Your task to perform on an android device: What is the news today? Image 0: 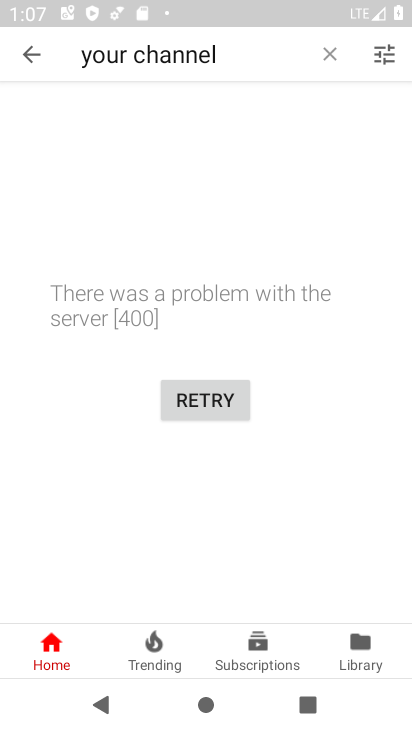
Step 0: press home button
Your task to perform on an android device: What is the news today? Image 1: 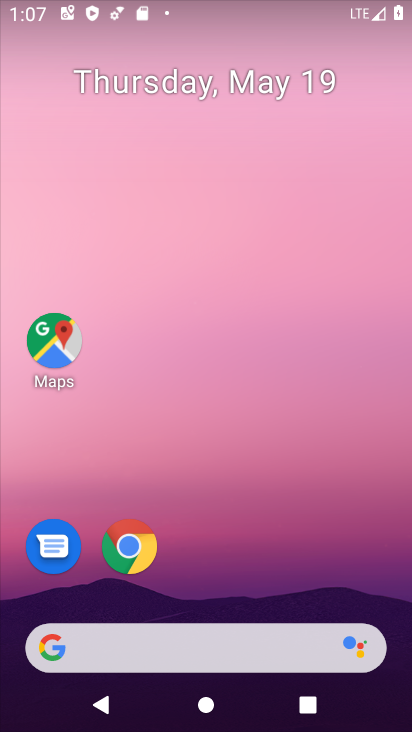
Step 1: click (160, 603)
Your task to perform on an android device: What is the news today? Image 2: 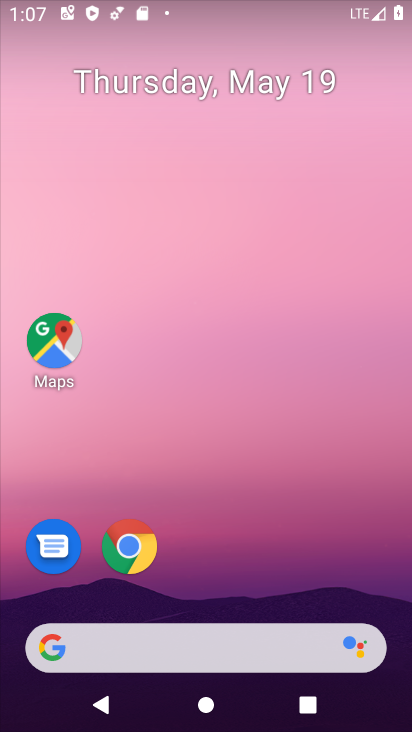
Step 2: click (193, 638)
Your task to perform on an android device: What is the news today? Image 3: 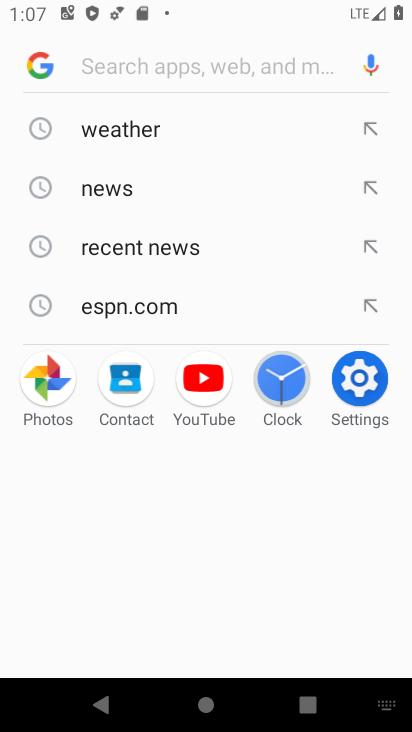
Step 3: click (157, 186)
Your task to perform on an android device: What is the news today? Image 4: 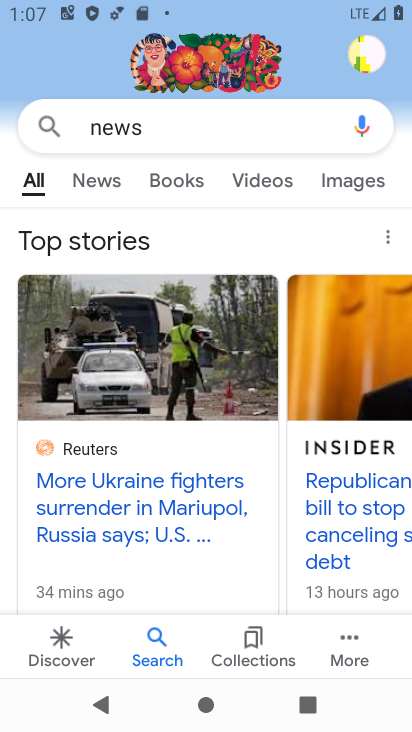
Step 4: task complete